Your task to perform on an android device: turn off location Image 0: 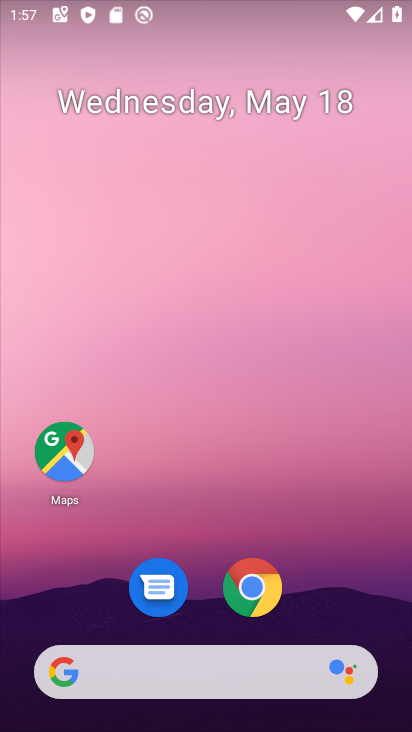
Step 0: drag from (346, 629) to (319, 0)
Your task to perform on an android device: turn off location Image 1: 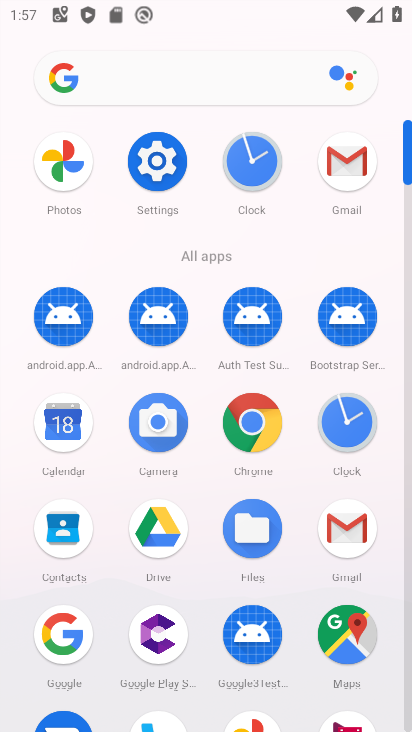
Step 1: click (163, 171)
Your task to perform on an android device: turn off location Image 2: 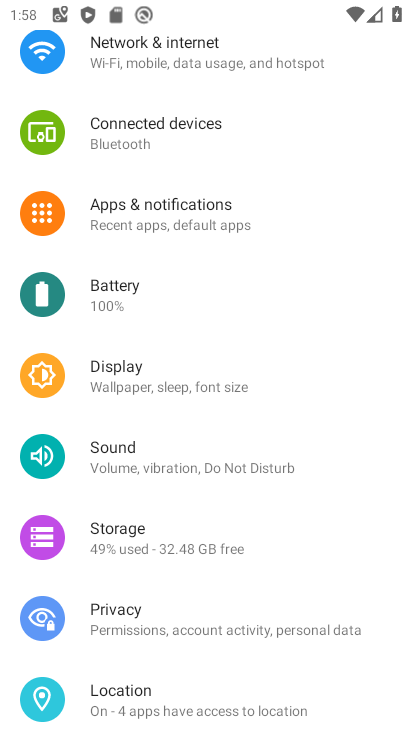
Step 2: click (128, 699)
Your task to perform on an android device: turn off location Image 3: 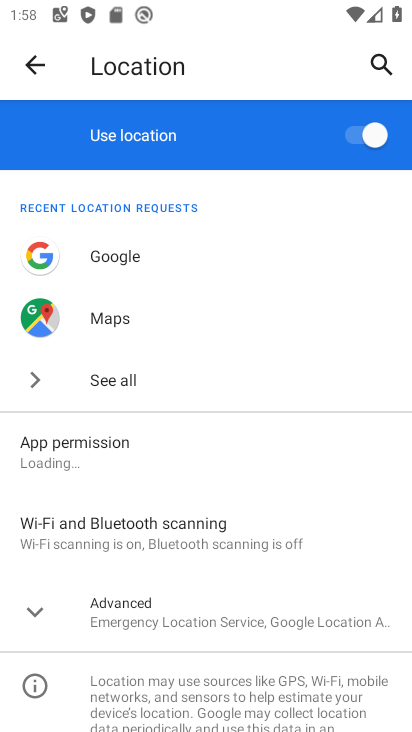
Step 3: click (365, 145)
Your task to perform on an android device: turn off location Image 4: 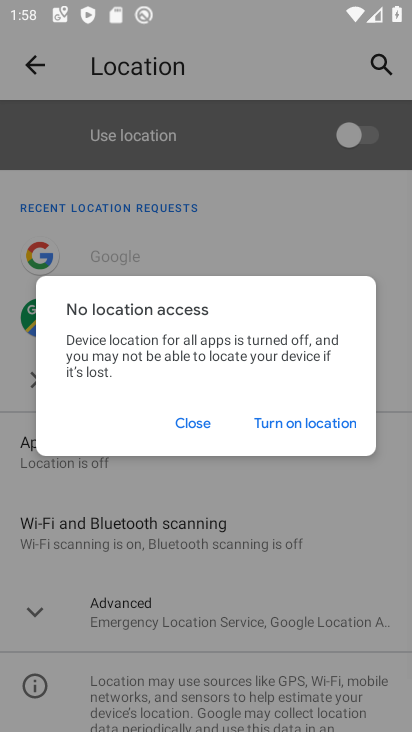
Step 4: task complete